Your task to perform on an android device: open app "DoorDash - Food Delivery" (install if not already installed) Image 0: 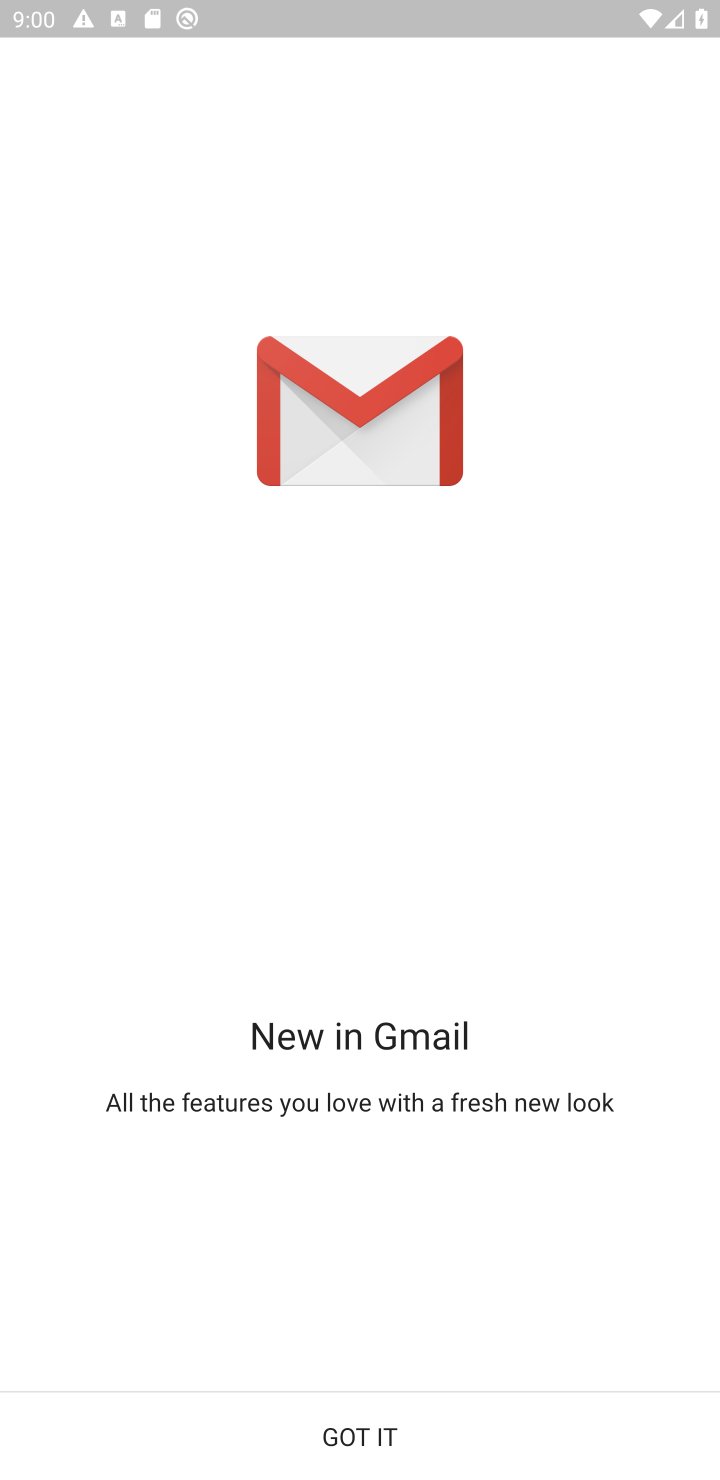
Step 0: press home button
Your task to perform on an android device: open app "DoorDash - Food Delivery" (install if not already installed) Image 1: 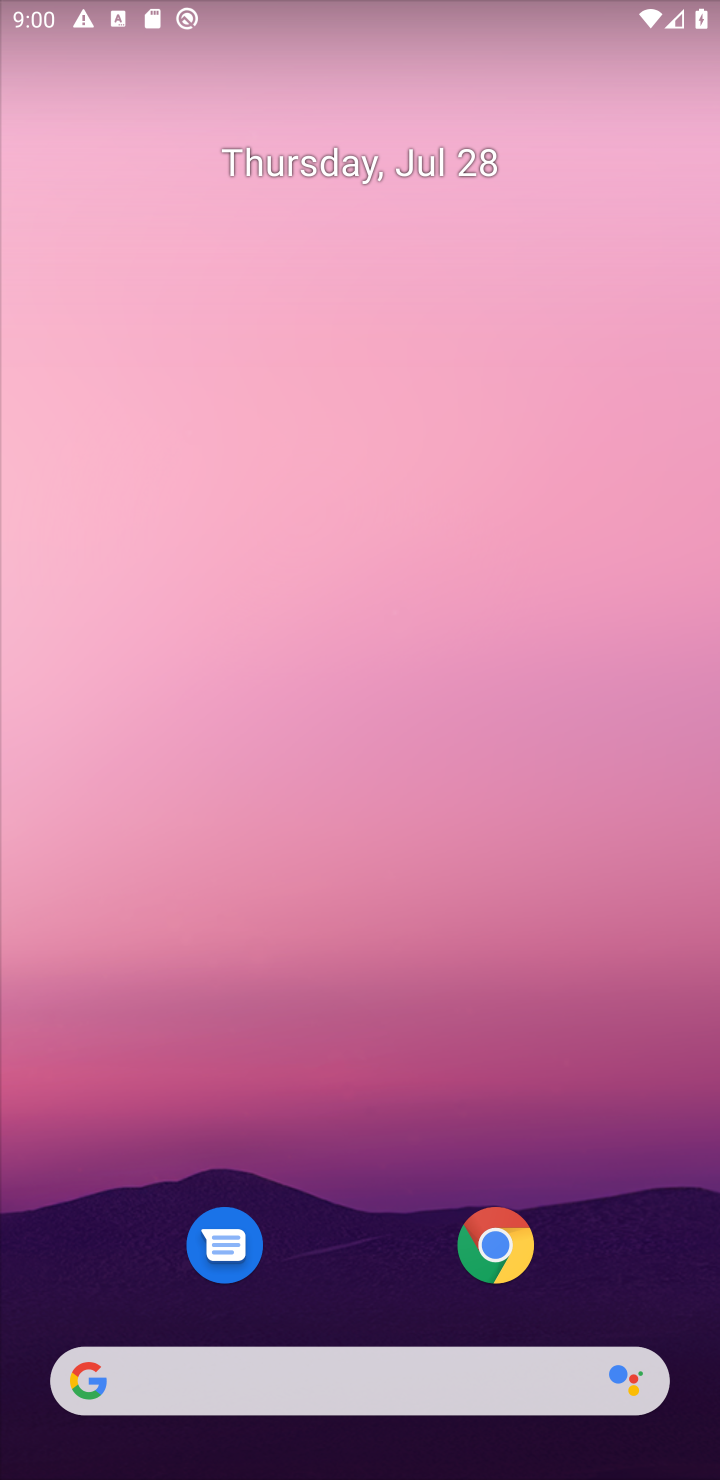
Step 1: drag from (355, 1233) to (337, 5)
Your task to perform on an android device: open app "DoorDash - Food Delivery" (install if not already installed) Image 2: 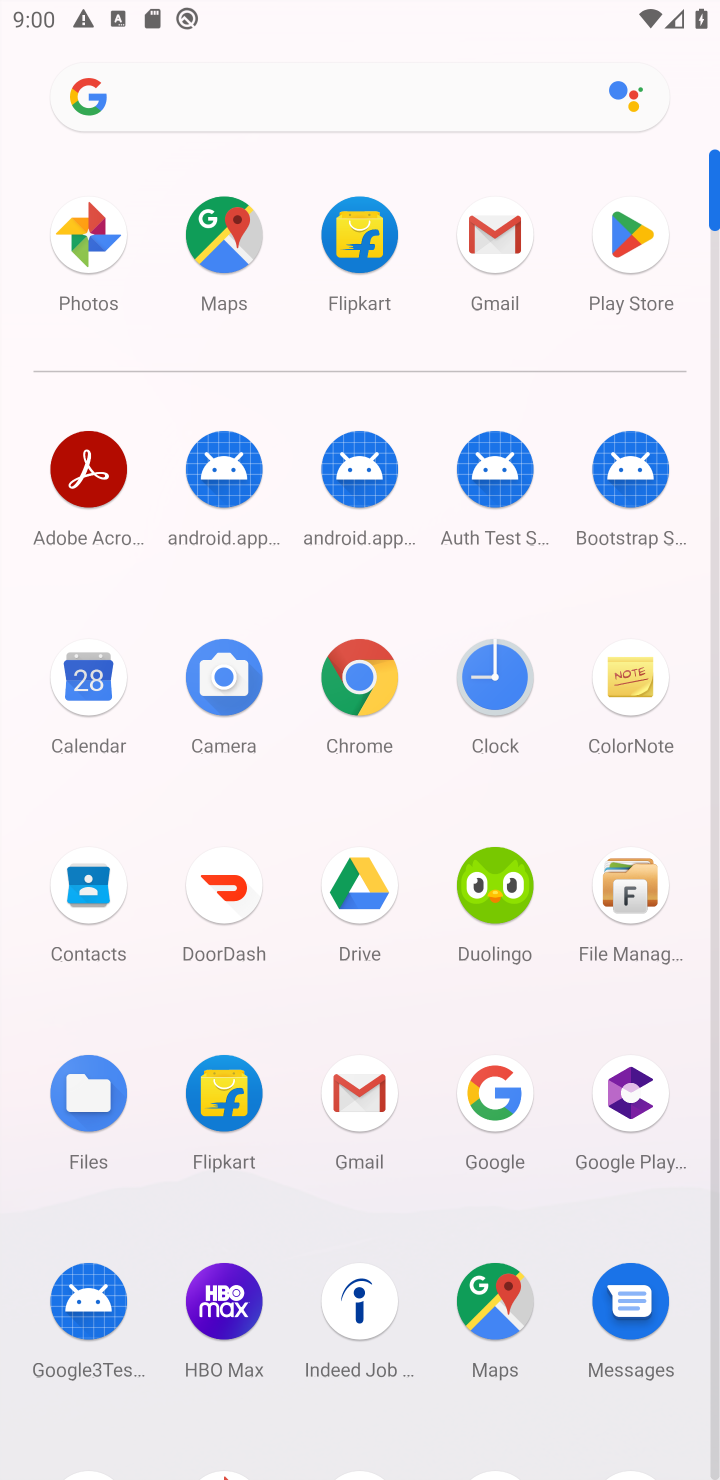
Step 2: click (612, 240)
Your task to perform on an android device: open app "DoorDash - Food Delivery" (install if not already installed) Image 3: 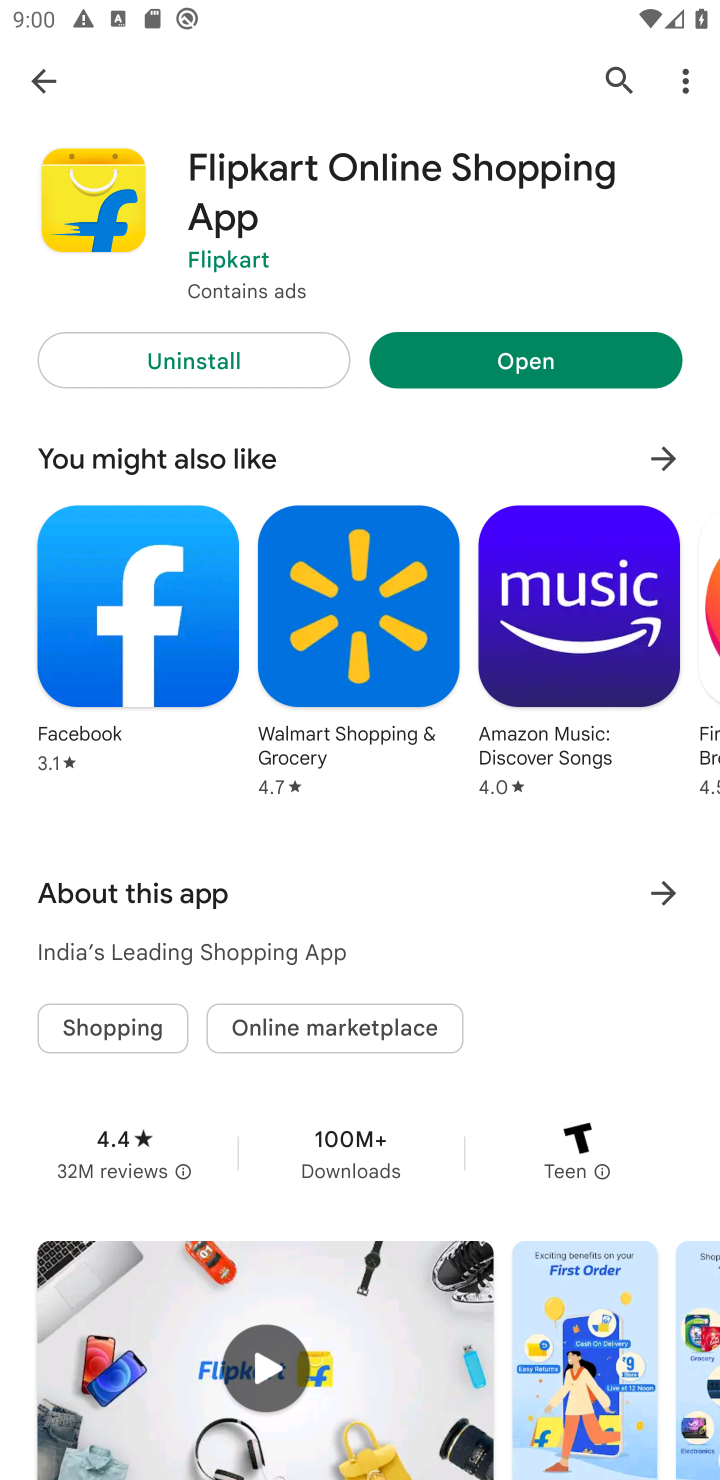
Step 3: click (608, 84)
Your task to perform on an android device: open app "DoorDash - Food Delivery" (install if not already installed) Image 4: 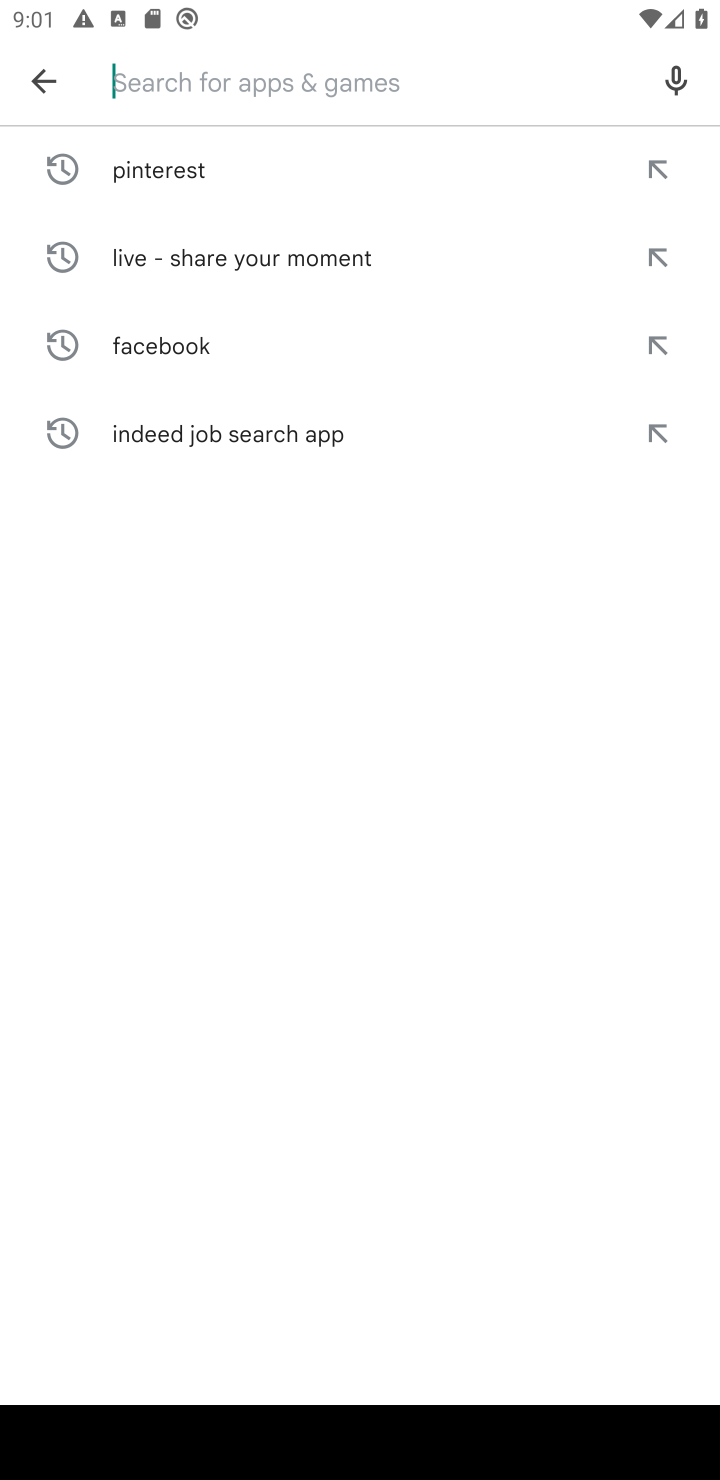
Step 4: type "DoorDash - Food Delivery"
Your task to perform on an android device: open app "DoorDash - Food Delivery" (install if not already installed) Image 5: 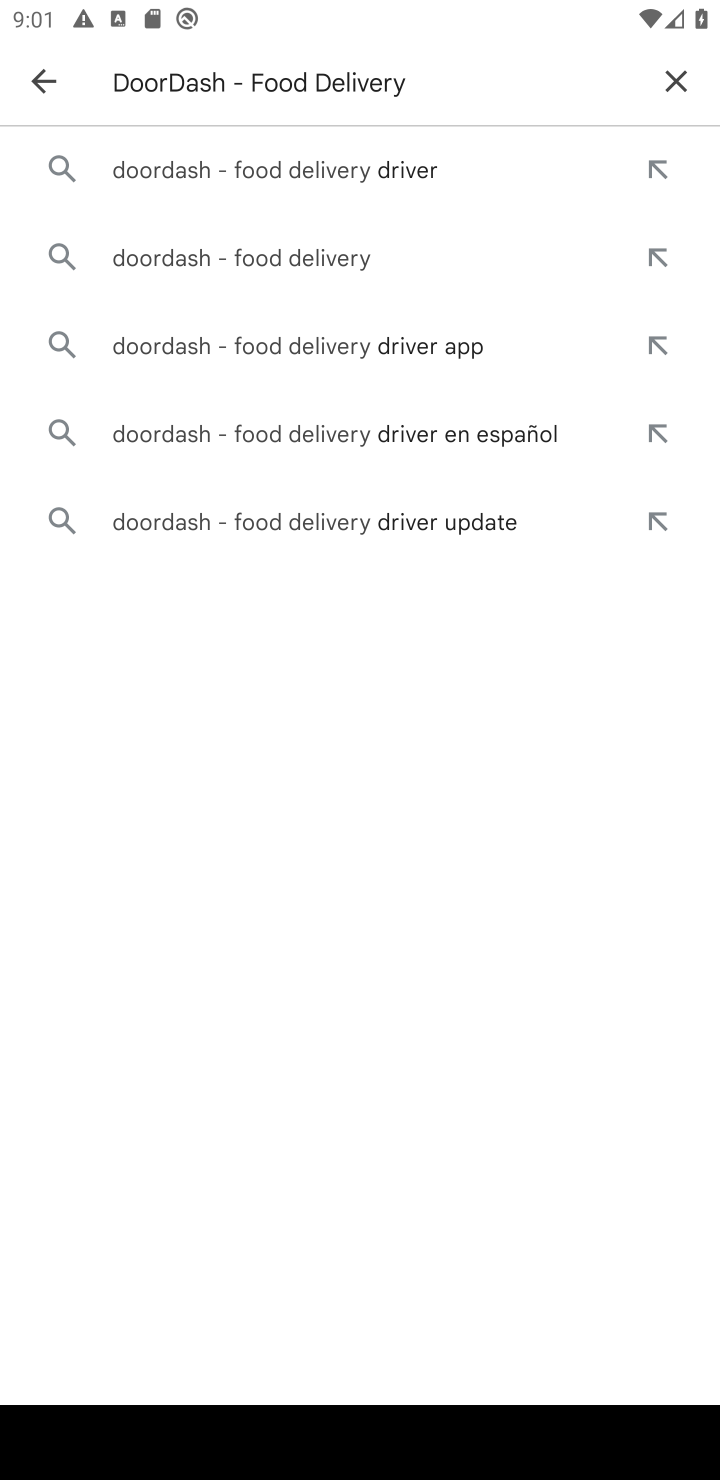
Step 5: click (331, 249)
Your task to perform on an android device: open app "DoorDash - Food Delivery" (install if not already installed) Image 6: 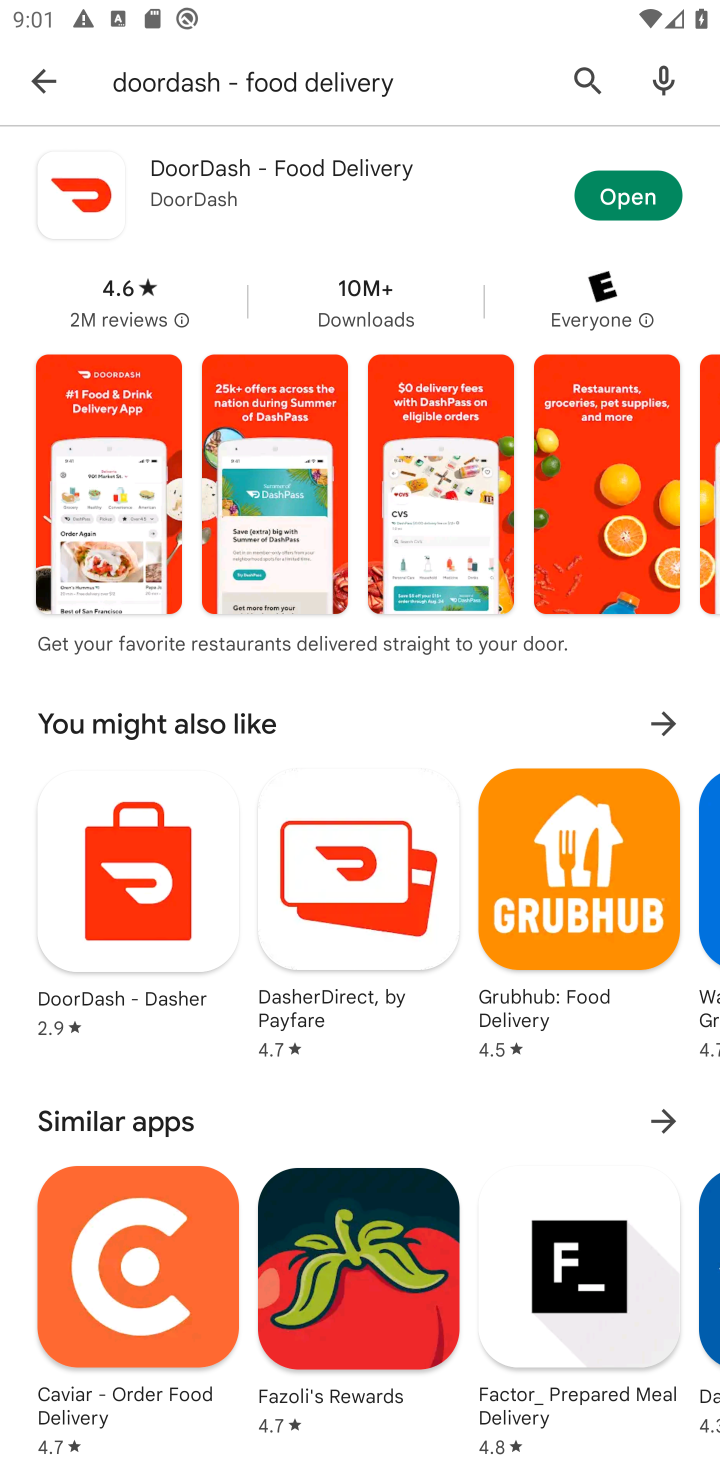
Step 6: click (280, 149)
Your task to perform on an android device: open app "DoorDash - Food Delivery" (install if not already installed) Image 7: 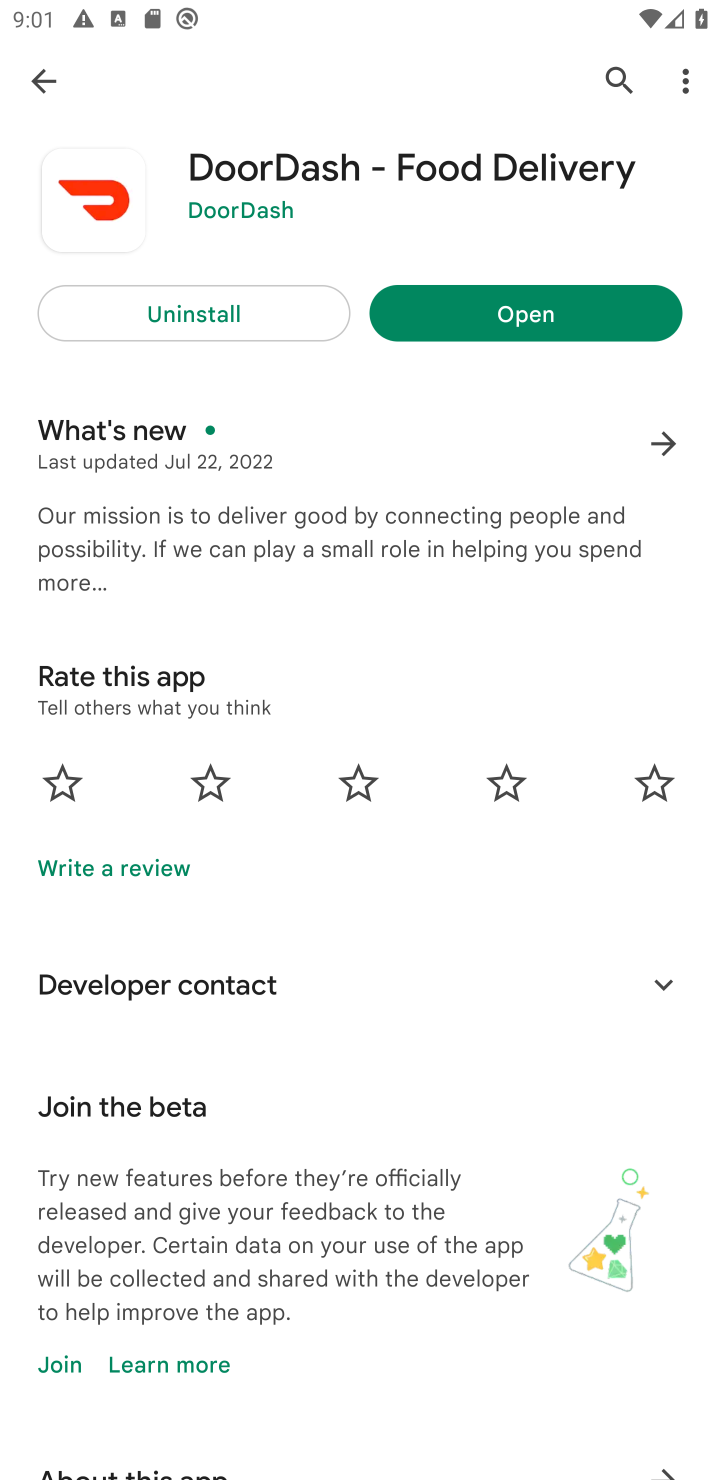
Step 7: click (500, 317)
Your task to perform on an android device: open app "DoorDash - Food Delivery" (install if not already installed) Image 8: 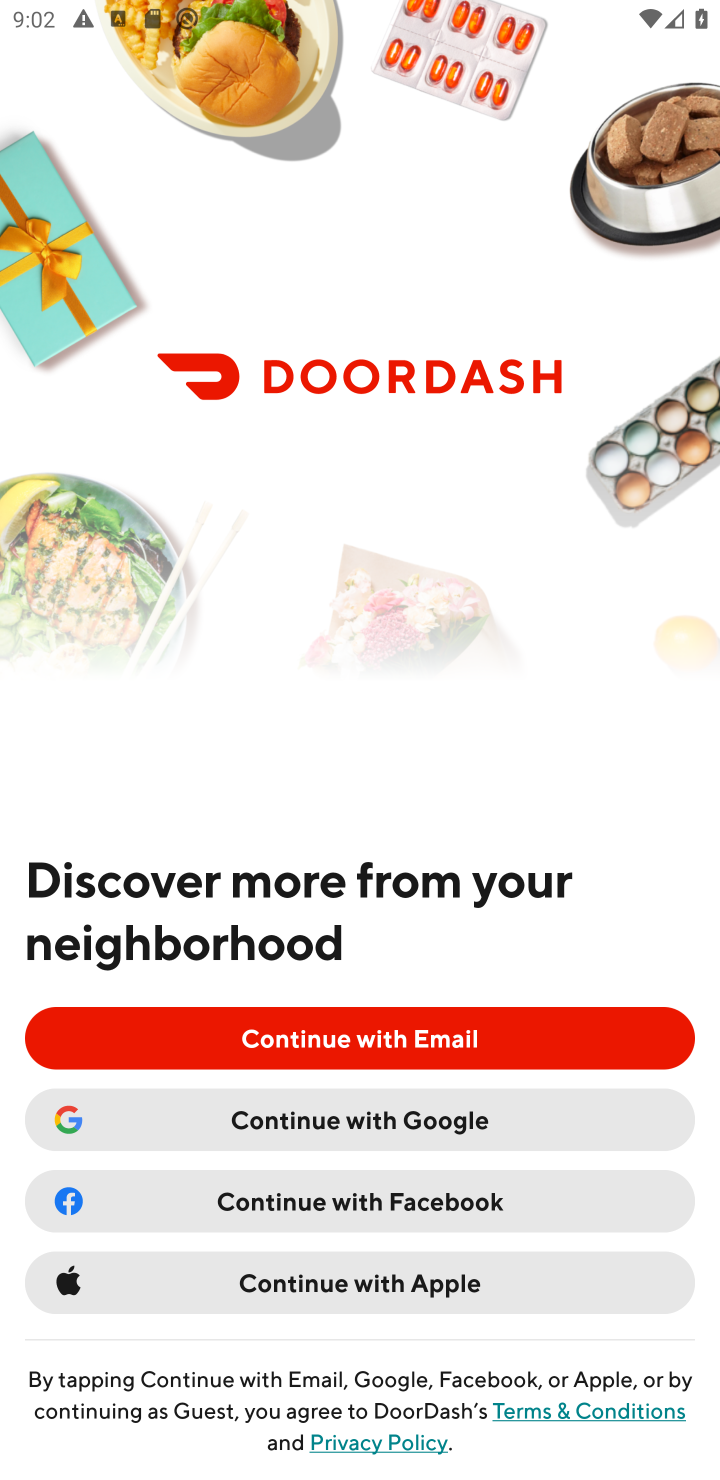
Step 8: task complete